Your task to perform on an android device: Open wifi settings Image 0: 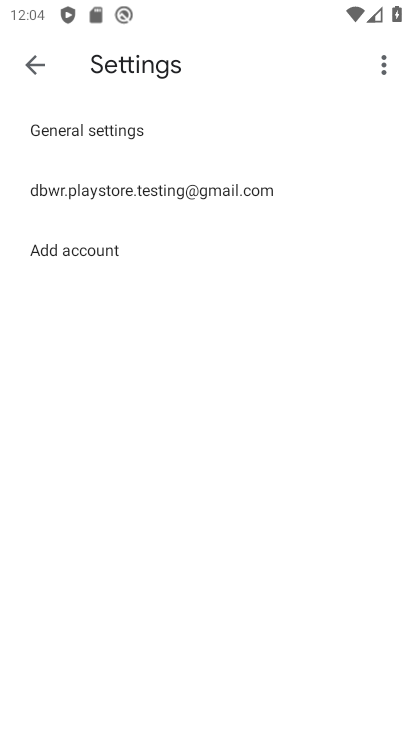
Step 0: press home button
Your task to perform on an android device: Open wifi settings Image 1: 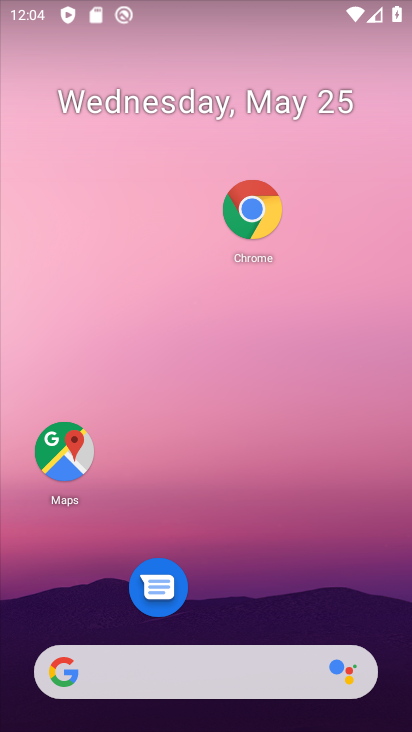
Step 1: drag from (230, 613) to (228, 118)
Your task to perform on an android device: Open wifi settings Image 2: 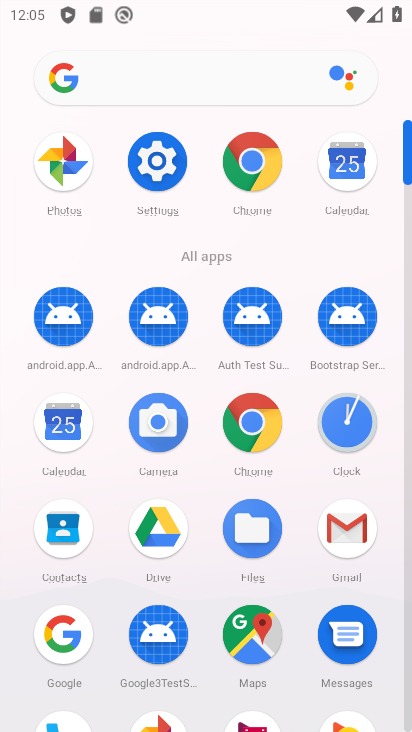
Step 2: click (155, 156)
Your task to perform on an android device: Open wifi settings Image 3: 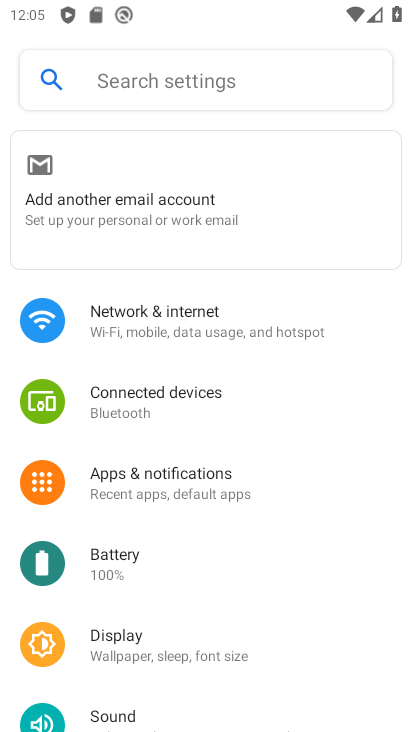
Step 3: click (187, 315)
Your task to perform on an android device: Open wifi settings Image 4: 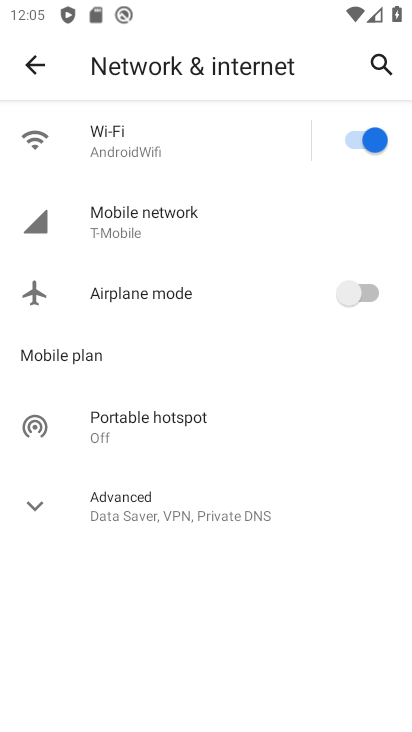
Step 4: click (162, 129)
Your task to perform on an android device: Open wifi settings Image 5: 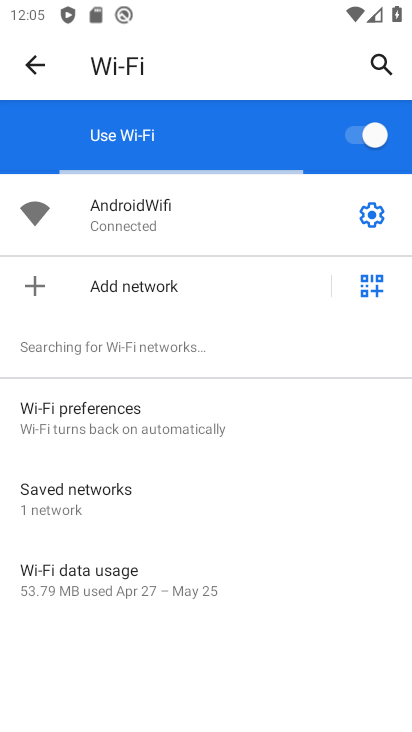
Step 5: task complete